Your task to perform on an android device: Check the news Image 0: 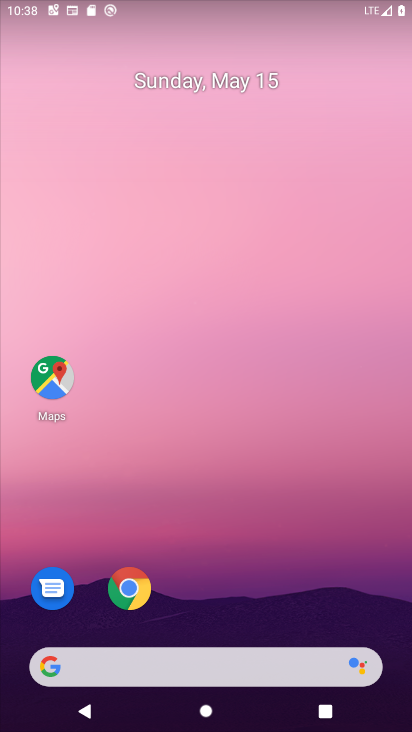
Step 0: click (57, 375)
Your task to perform on an android device: Check the news Image 1: 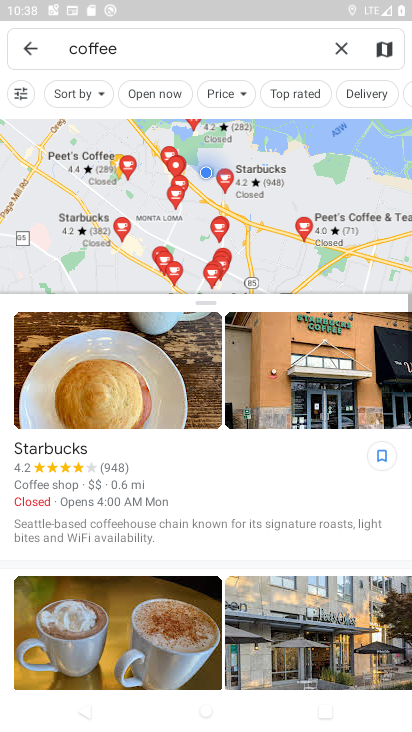
Step 1: press home button
Your task to perform on an android device: Check the news Image 2: 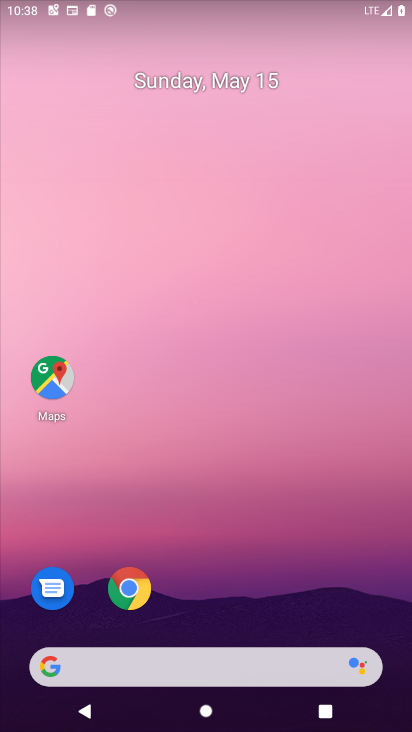
Step 2: click (217, 676)
Your task to perform on an android device: Check the news Image 3: 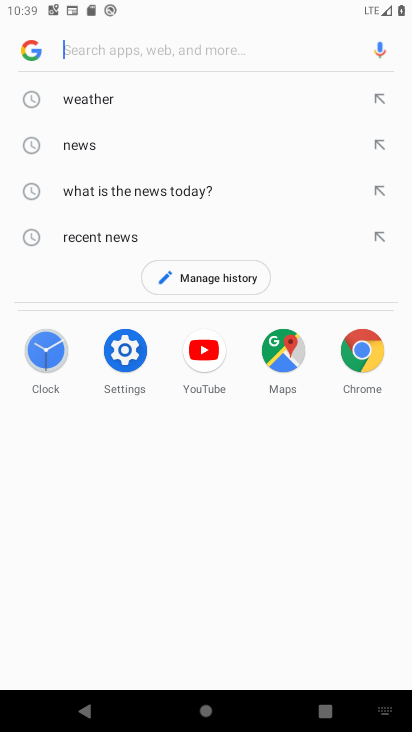
Step 3: click (96, 137)
Your task to perform on an android device: Check the news Image 4: 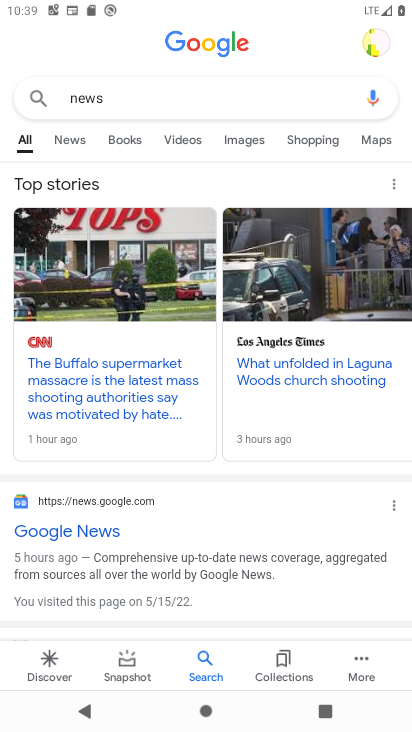
Step 4: click (70, 133)
Your task to perform on an android device: Check the news Image 5: 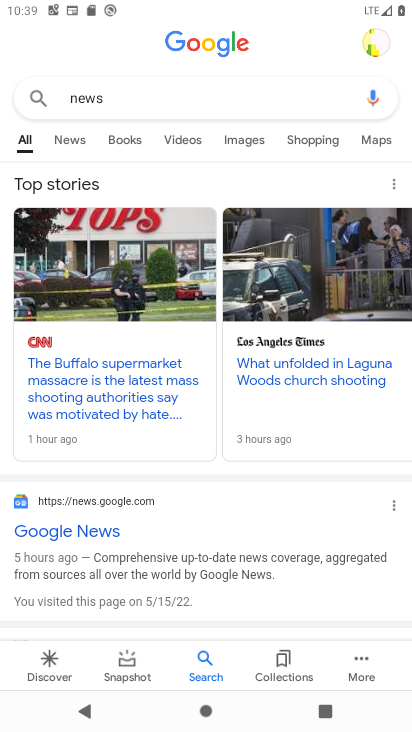
Step 5: click (70, 133)
Your task to perform on an android device: Check the news Image 6: 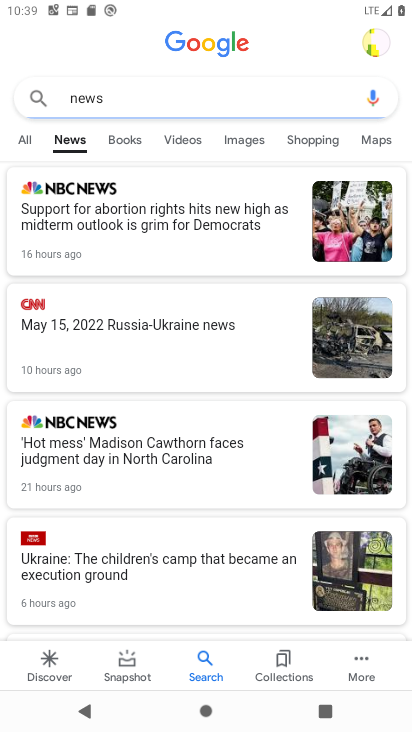
Step 6: task complete